Your task to perform on an android device: open a new tab in the chrome app Image 0: 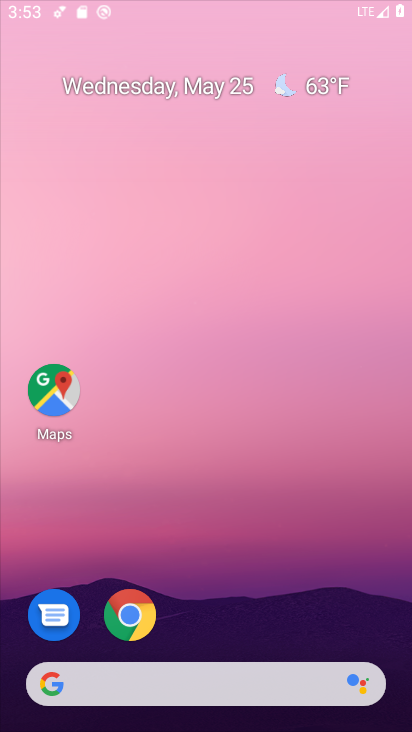
Step 0: drag from (222, 209) to (191, 52)
Your task to perform on an android device: open a new tab in the chrome app Image 1: 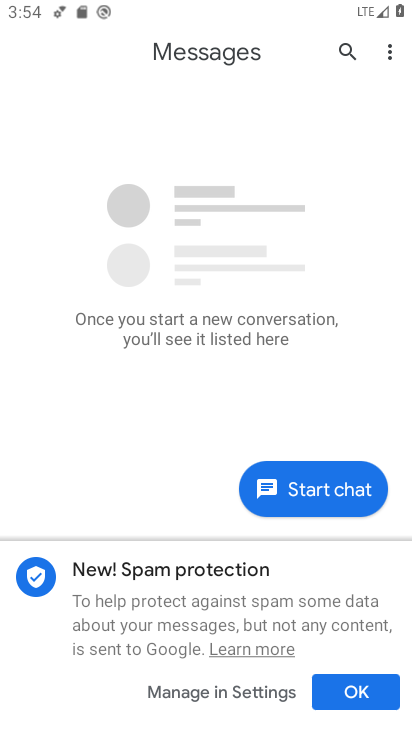
Step 1: press home button
Your task to perform on an android device: open a new tab in the chrome app Image 2: 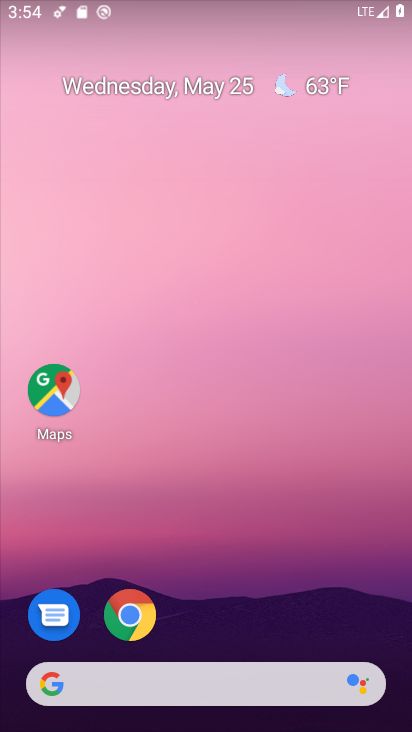
Step 2: click (129, 610)
Your task to perform on an android device: open a new tab in the chrome app Image 3: 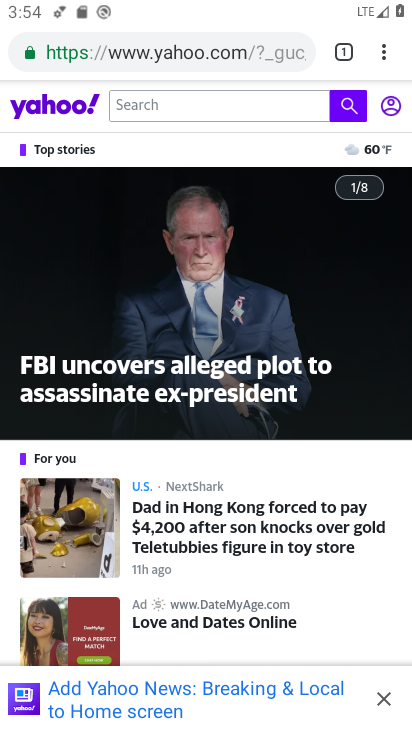
Step 3: click (382, 49)
Your task to perform on an android device: open a new tab in the chrome app Image 4: 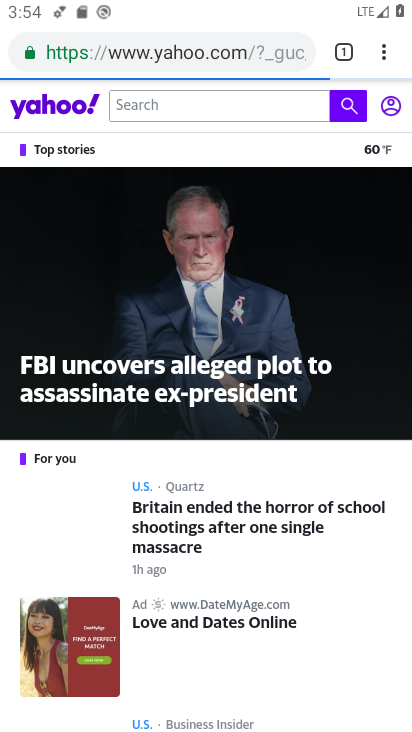
Step 4: click (342, 45)
Your task to perform on an android device: open a new tab in the chrome app Image 5: 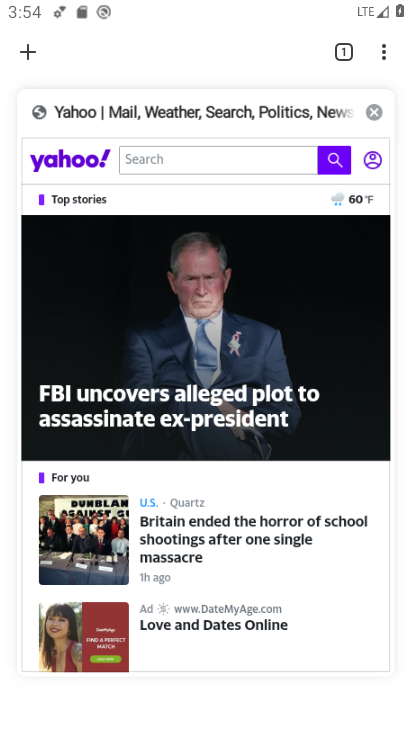
Step 5: click (31, 47)
Your task to perform on an android device: open a new tab in the chrome app Image 6: 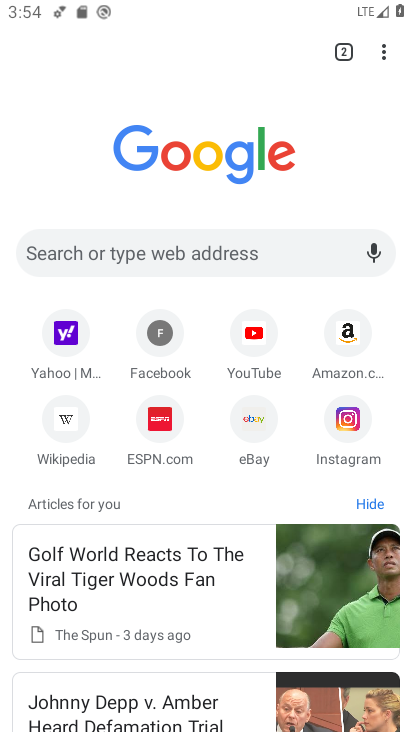
Step 6: task complete